Your task to perform on an android device: toggle javascript in the chrome app Image 0: 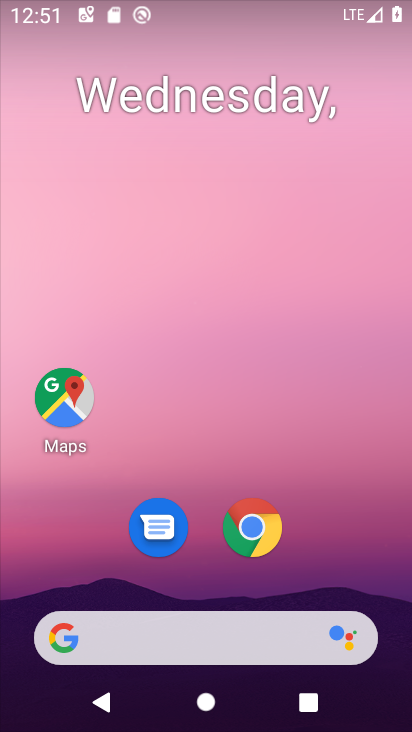
Step 0: drag from (237, 605) to (270, 64)
Your task to perform on an android device: toggle javascript in the chrome app Image 1: 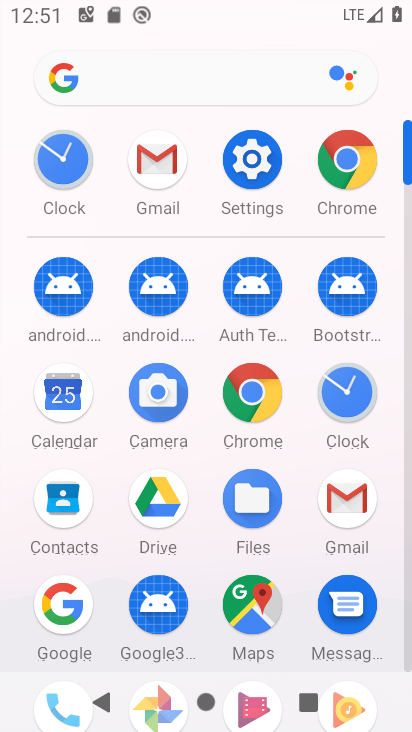
Step 1: click (252, 398)
Your task to perform on an android device: toggle javascript in the chrome app Image 2: 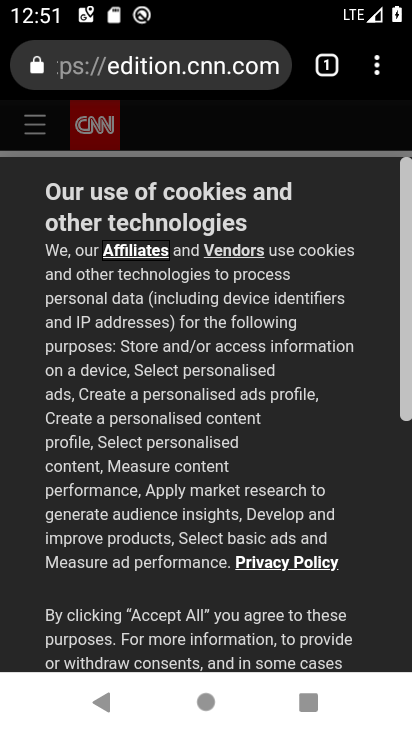
Step 2: click (374, 67)
Your task to perform on an android device: toggle javascript in the chrome app Image 3: 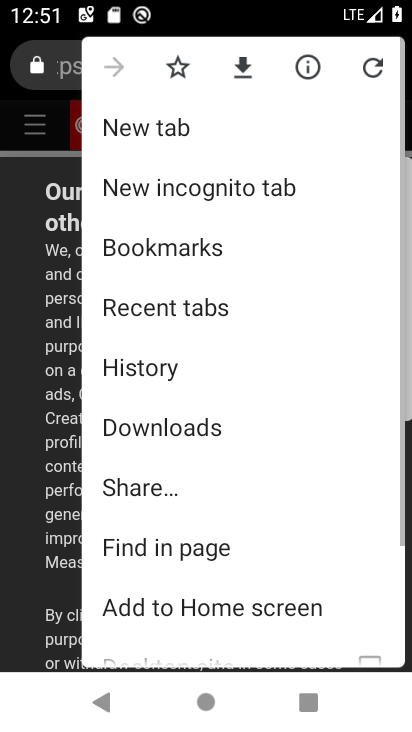
Step 3: drag from (264, 554) to (282, 36)
Your task to perform on an android device: toggle javascript in the chrome app Image 4: 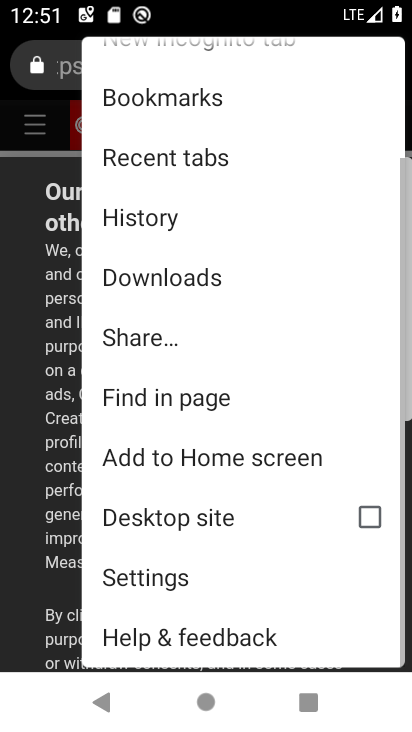
Step 4: click (218, 577)
Your task to perform on an android device: toggle javascript in the chrome app Image 5: 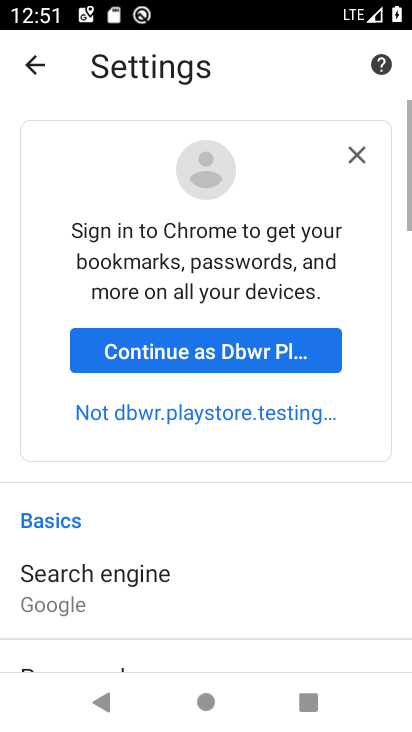
Step 5: drag from (221, 594) to (326, 13)
Your task to perform on an android device: toggle javascript in the chrome app Image 6: 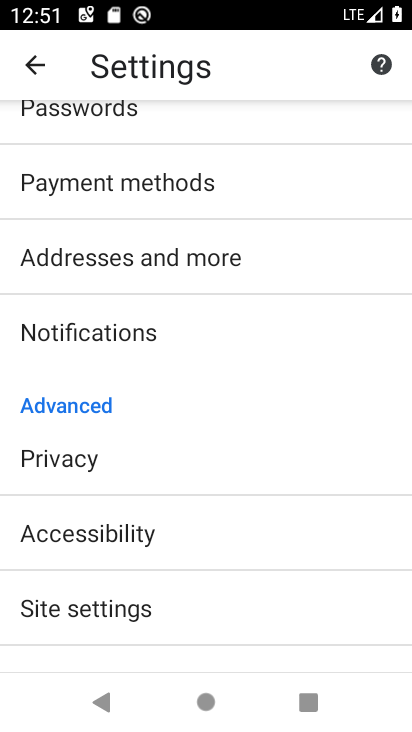
Step 6: click (229, 603)
Your task to perform on an android device: toggle javascript in the chrome app Image 7: 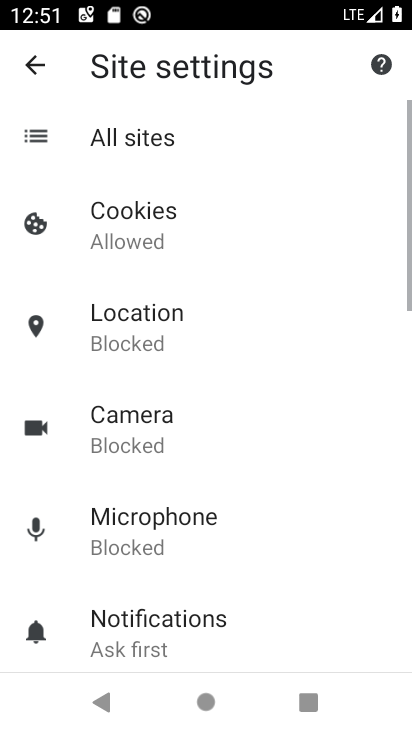
Step 7: drag from (229, 603) to (271, 99)
Your task to perform on an android device: toggle javascript in the chrome app Image 8: 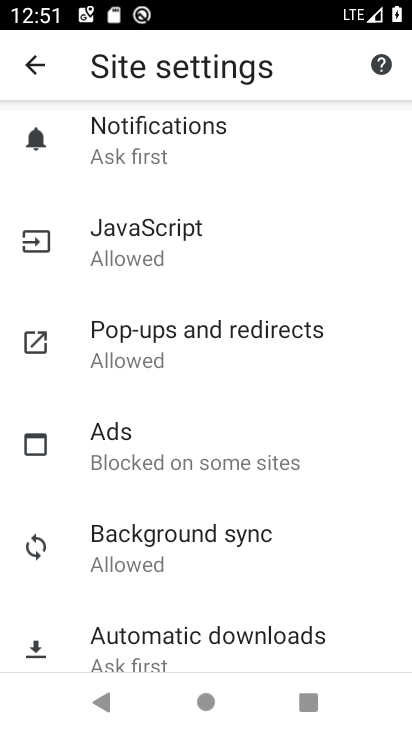
Step 8: click (186, 235)
Your task to perform on an android device: toggle javascript in the chrome app Image 9: 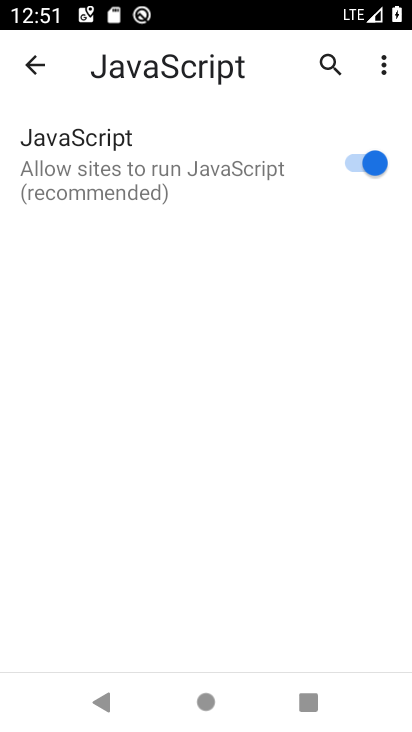
Step 9: click (366, 159)
Your task to perform on an android device: toggle javascript in the chrome app Image 10: 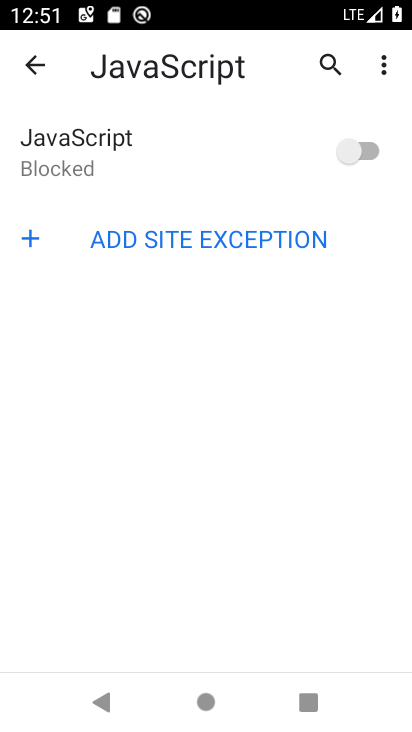
Step 10: task complete